Your task to perform on an android device: change the clock display to digital Image 0: 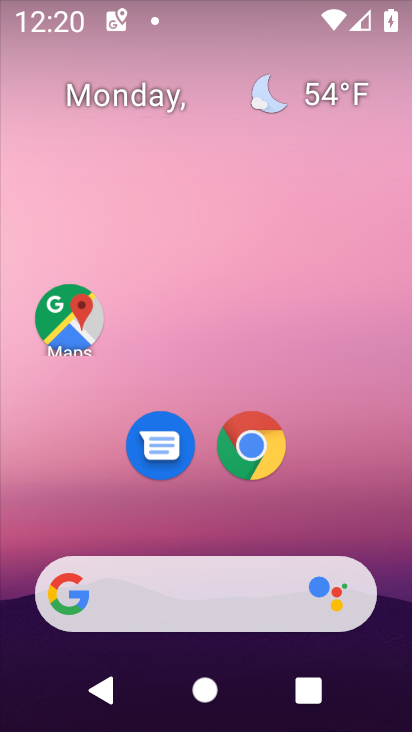
Step 0: drag from (340, 506) to (390, 100)
Your task to perform on an android device: change the clock display to digital Image 1: 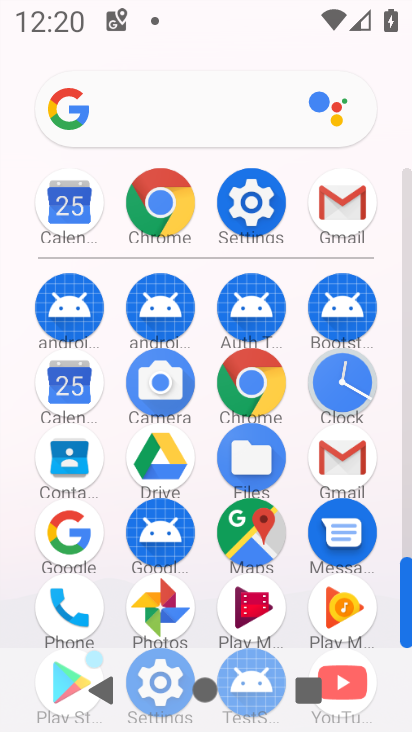
Step 1: click (349, 397)
Your task to perform on an android device: change the clock display to digital Image 2: 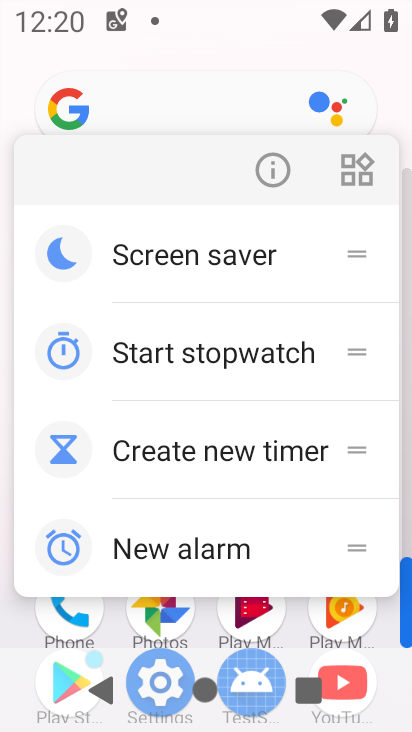
Step 2: drag from (404, 124) to (388, 55)
Your task to perform on an android device: change the clock display to digital Image 3: 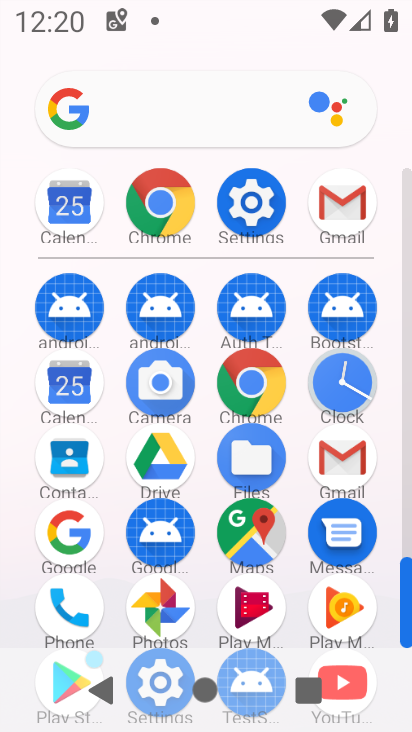
Step 3: click (348, 403)
Your task to perform on an android device: change the clock display to digital Image 4: 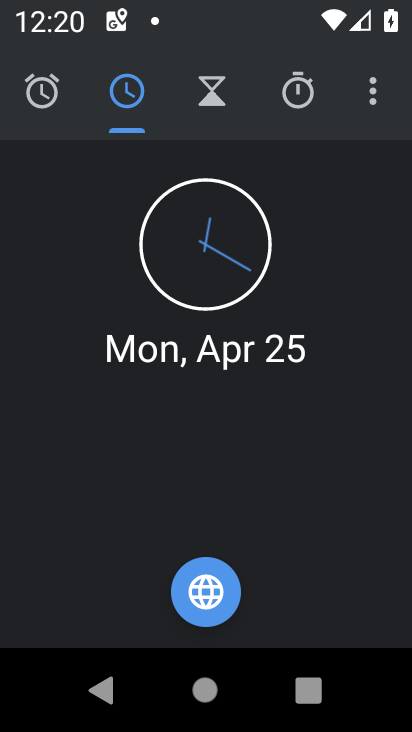
Step 4: click (376, 102)
Your task to perform on an android device: change the clock display to digital Image 5: 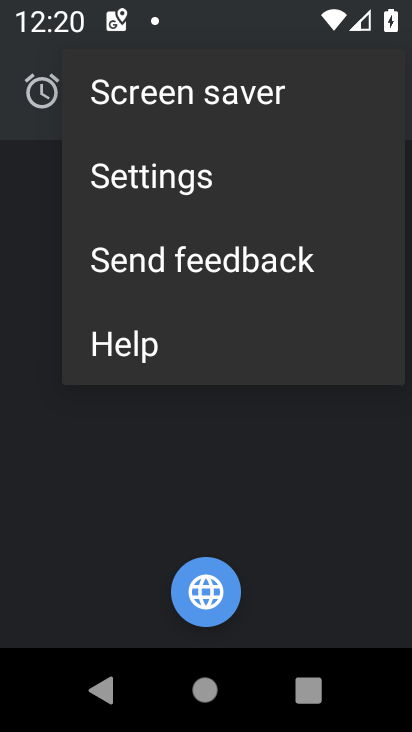
Step 5: click (221, 171)
Your task to perform on an android device: change the clock display to digital Image 6: 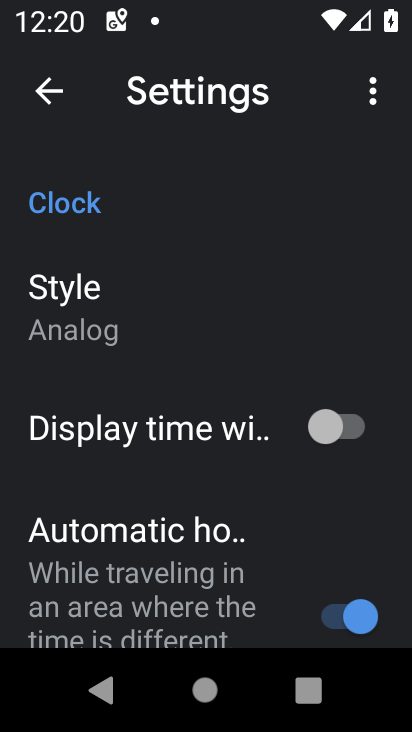
Step 6: click (78, 312)
Your task to perform on an android device: change the clock display to digital Image 7: 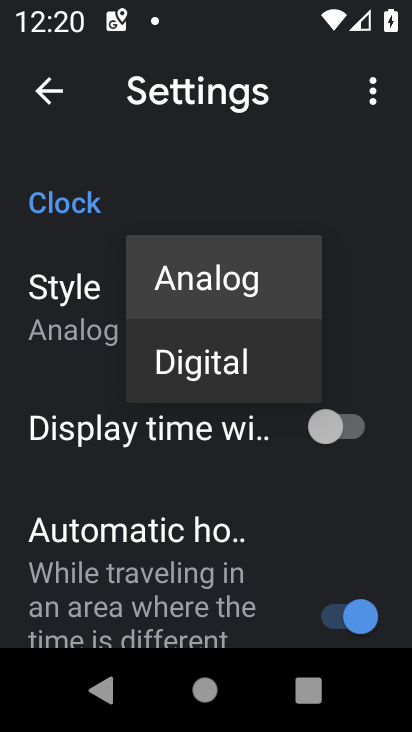
Step 7: click (164, 381)
Your task to perform on an android device: change the clock display to digital Image 8: 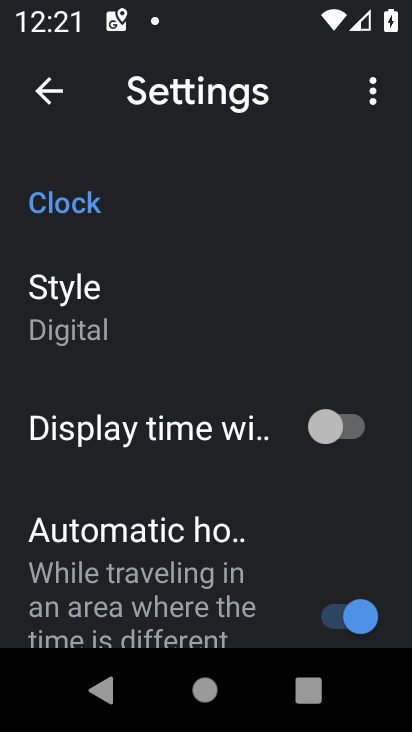
Step 8: task complete